Your task to perform on an android device: What is the recent news? Image 0: 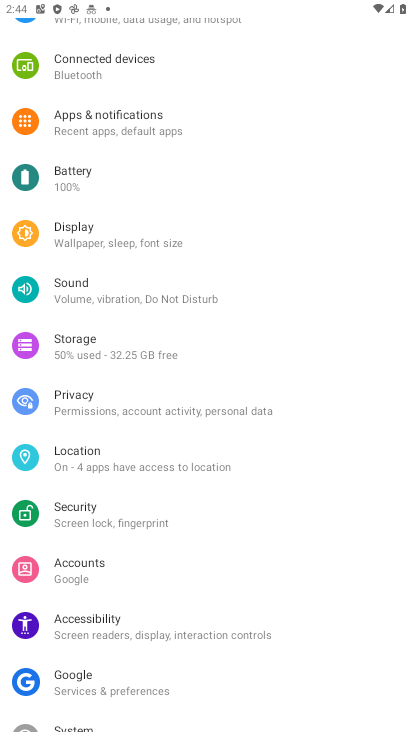
Step 0: task complete